Your task to perform on an android device: open wifi settings Image 0: 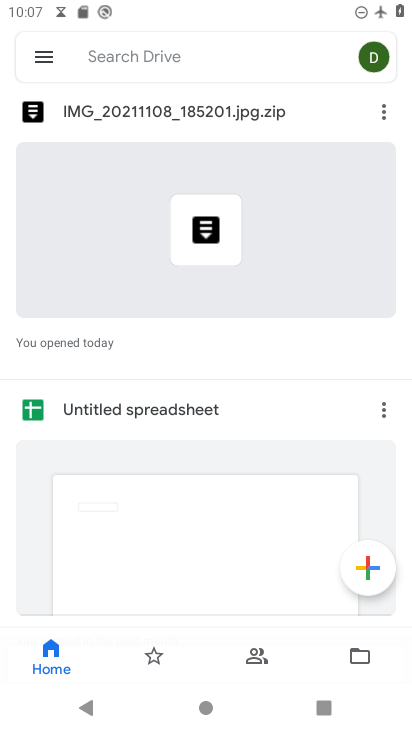
Step 0: press home button
Your task to perform on an android device: open wifi settings Image 1: 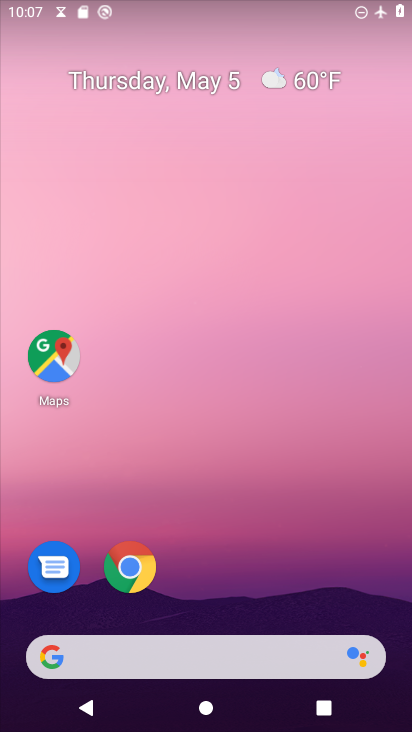
Step 1: drag from (219, 502) to (219, 167)
Your task to perform on an android device: open wifi settings Image 2: 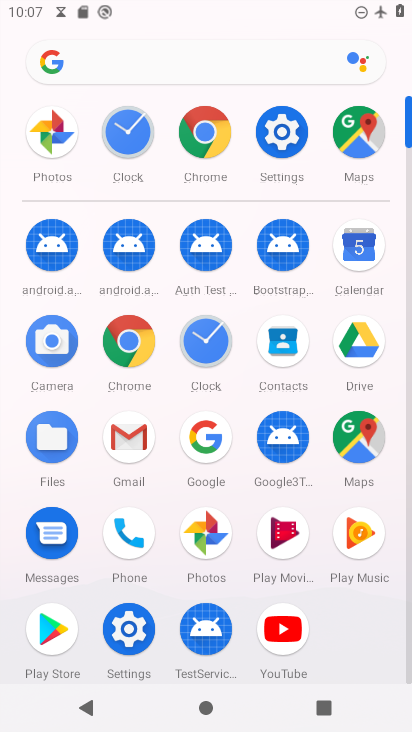
Step 2: click (278, 130)
Your task to perform on an android device: open wifi settings Image 3: 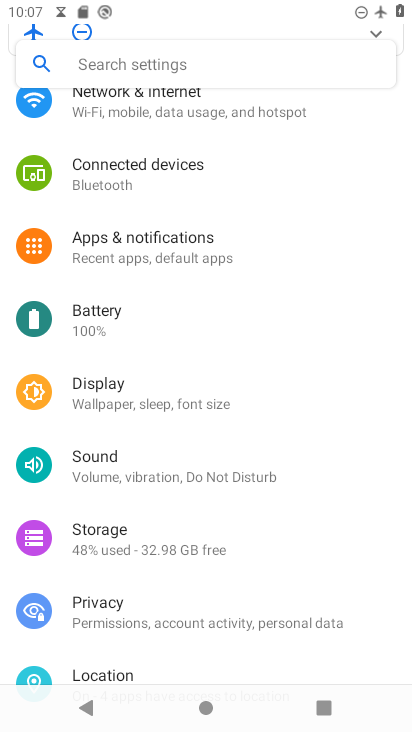
Step 3: drag from (156, 141) to (163, 465)
Your task to perform on an android device: open wifi settings Image 4: 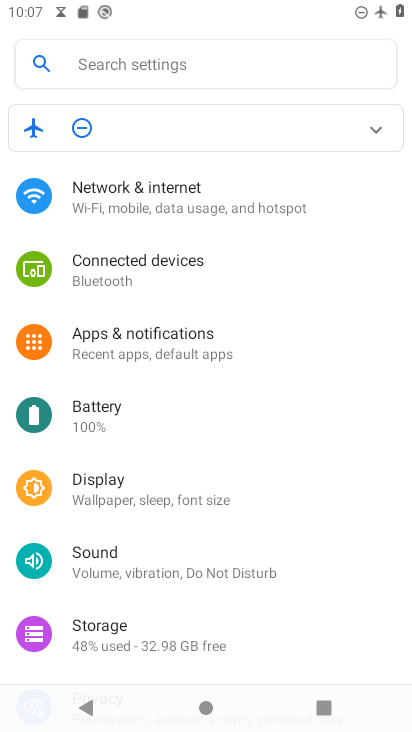
Step 4: click (141, 196)
Your task to perform on an android device: open wifi settings Image 5: 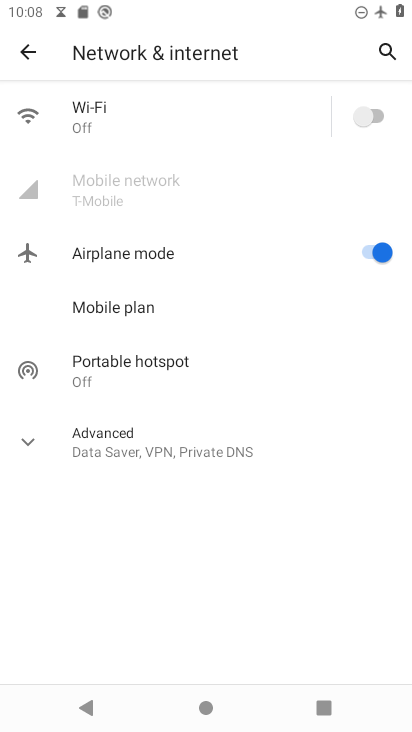
Step 5: click (61, 109)
Your task to perform on an android device: open wifi settings Image 6: 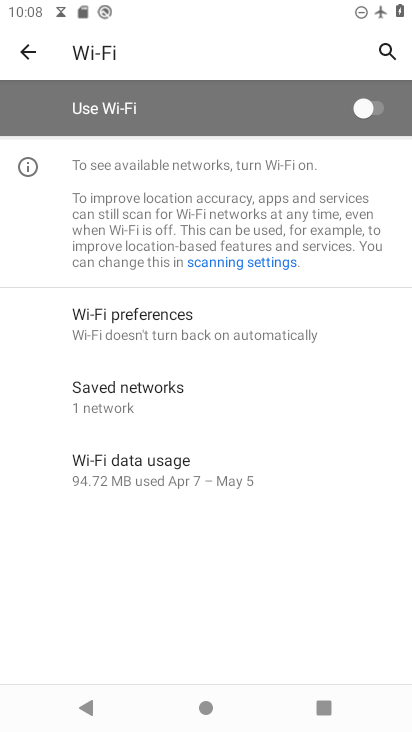
Step 6: task complete